Your task to perform on an android device: Open calendar and show me the second week of next month Image 0: 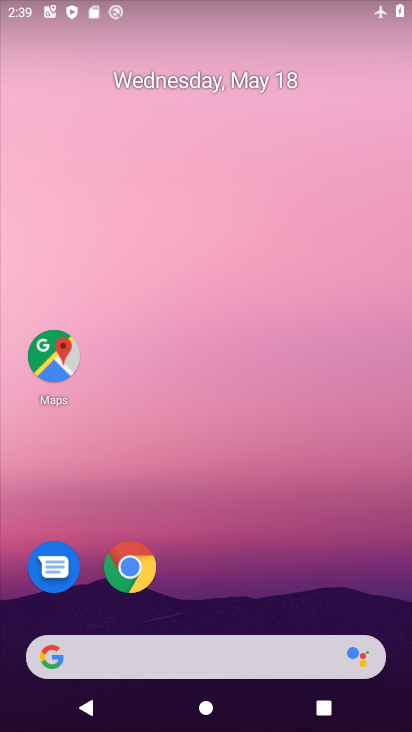
Step 0: drag from (249, 565) to (260, 225)
Your task to perform on an android device: Open calendar and show me the second week of next month Image 1: 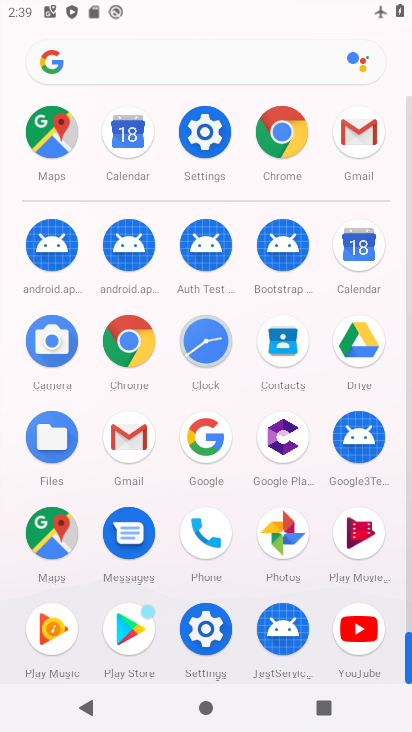
Step 1: click (360, 236)
Your task to perform on an android device: Open calendar and show me the second week of next month Image 2: 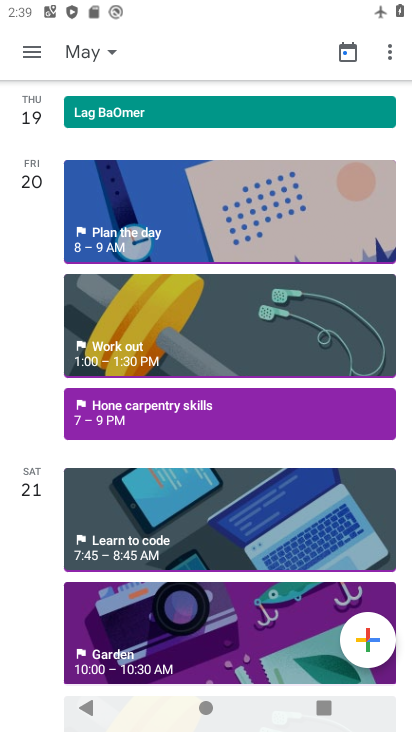
Step 2: click (25, 50)
Your task to perform on an android device: Open calendar and show me the second week of next month Image 3: 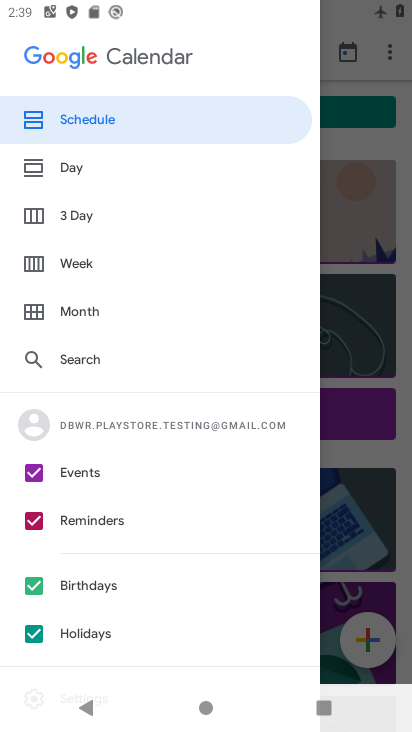
Step 3: click (88, 311)
Your task to perform on an android device: Open calendar and show me the second week of next month Image 4: 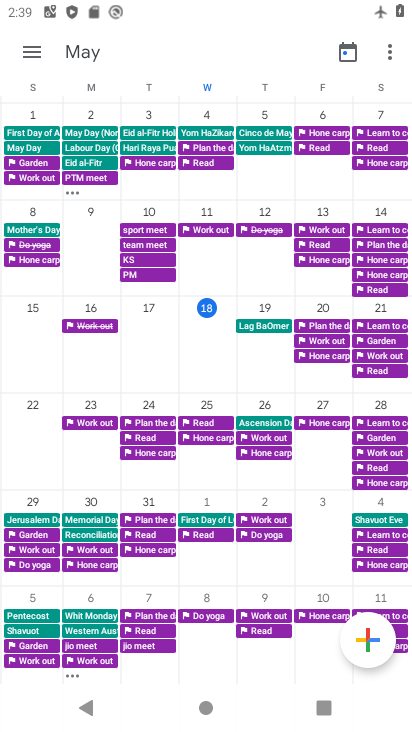
Step 4: task complete